Your task to perform on an android device: Open eBay Image 0: 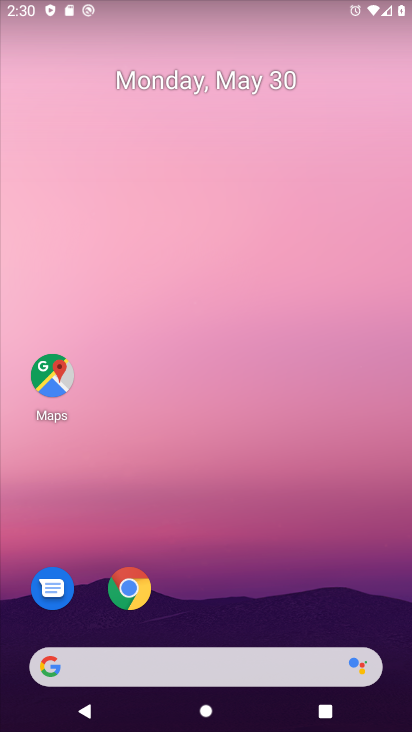
Step 0: click (129, 586)
Your task to perform on an android device: Open eBay Image 1: 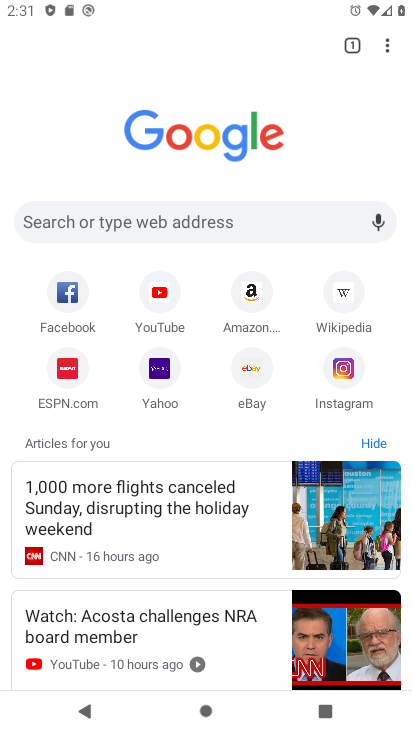
Step 1: click (267, 354)
Your task to perform on an android device: Open eBay Image 2: 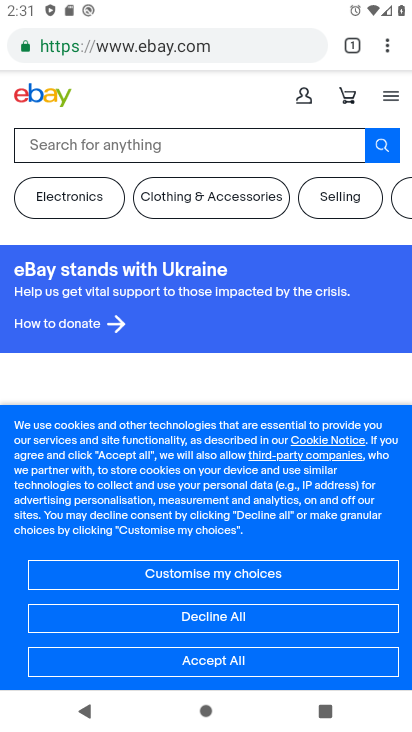
Step 2: task complete